Your task to perform on an android device: open device folders in google photos Image 0: 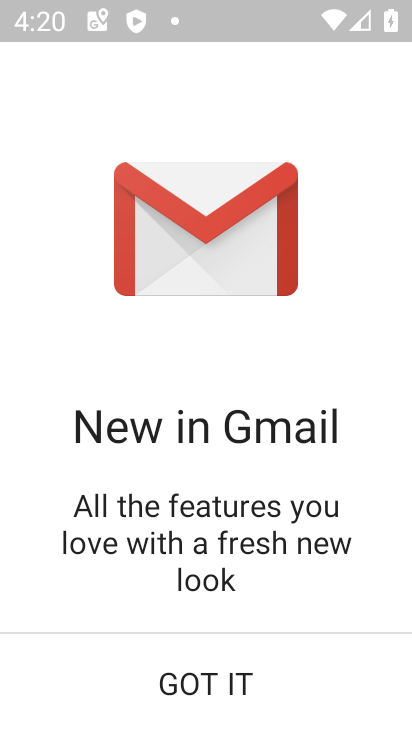
Step 0: press home button
Your task to perform on an android device: open device folders in google photos Image 1: 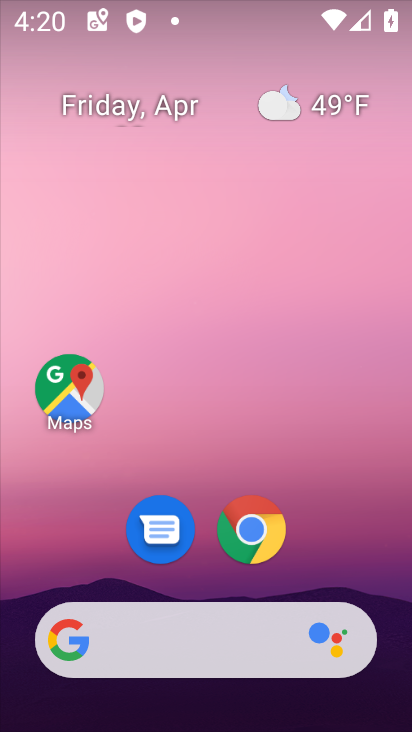
Step 1: drag from (220, 715) to (220, 150)
Your task to perform on an android device: open device folders in google photos Image 2: 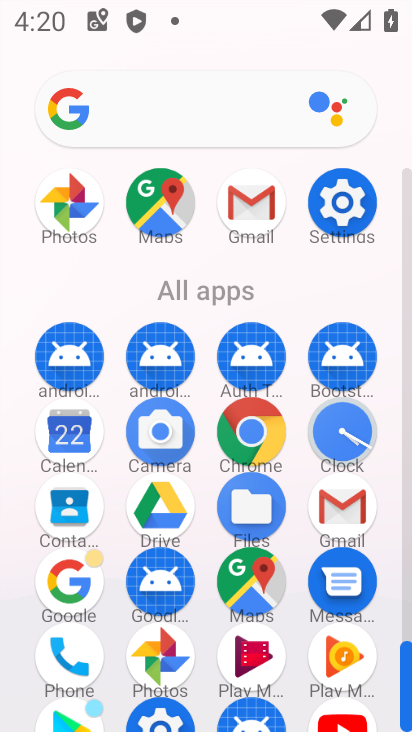
Step 2: click (162, 647)
Your task to perform on an android device: open device folders in google photos Image 3: 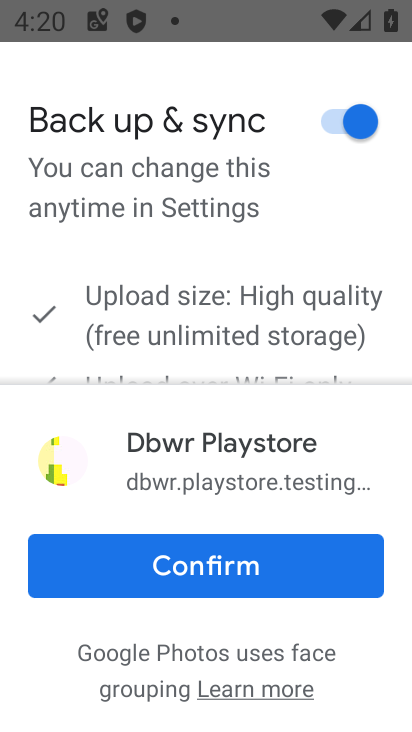
Step 3: click (210, 563)
Your task to perform on an android device: open device folders in google photos Image 4: 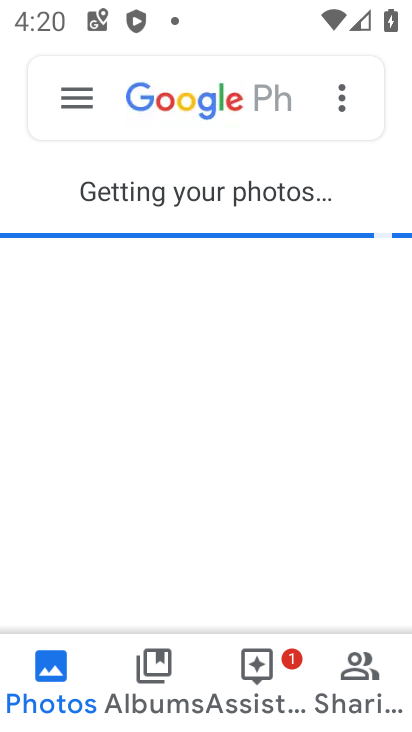
Step 4: click (76, 99)
Your task to perform on an android device: open device folders in google photos Image 5: 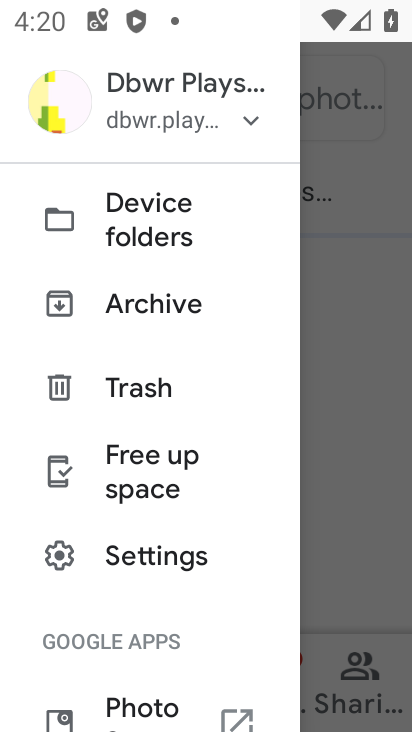
Step 5: click (123, 221)
Your task to perform on an android device: open device folders in google photos Image 6: 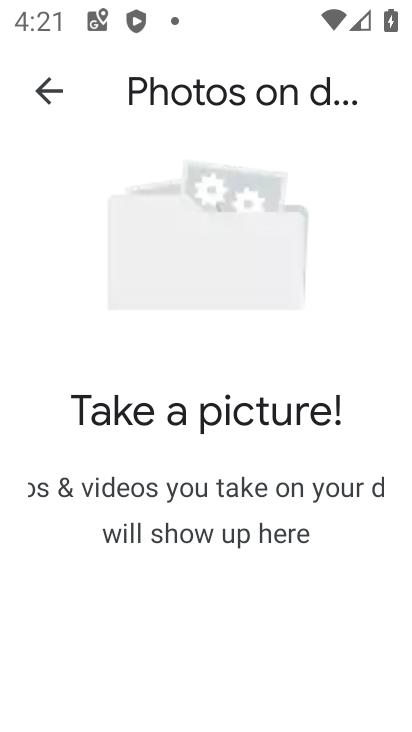
Step 6: task complete